Your task to perform on an android device: toggle sleep mode Image 0: 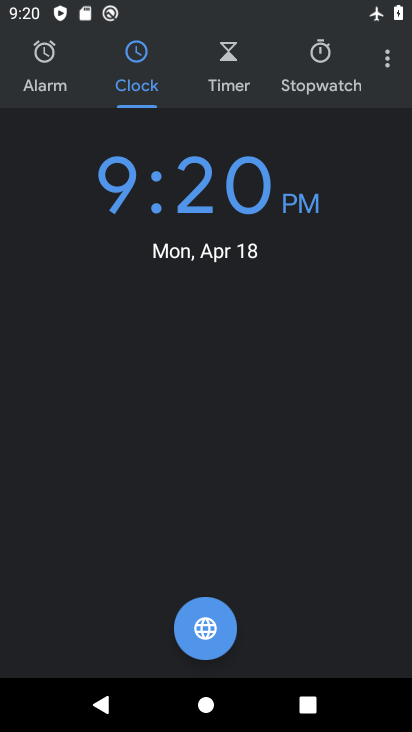
Step 0: press home button
Your task to perform on an android device: toggle sleep mode Image 1: 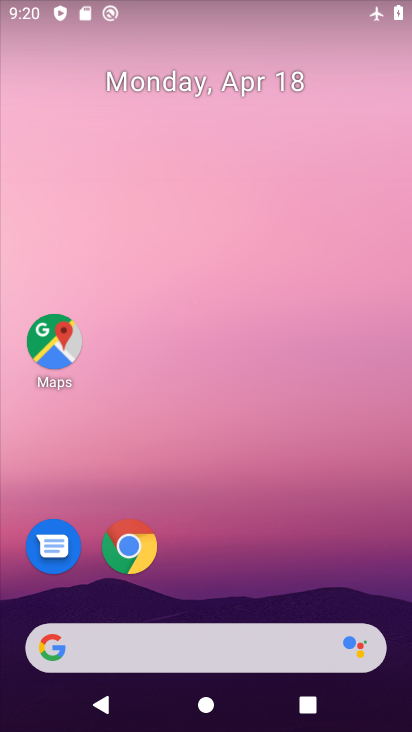
Step 1: drag from (302, 504) to (294, 111)
Your task to perform on an android device: toggle sleep mode Image 2: 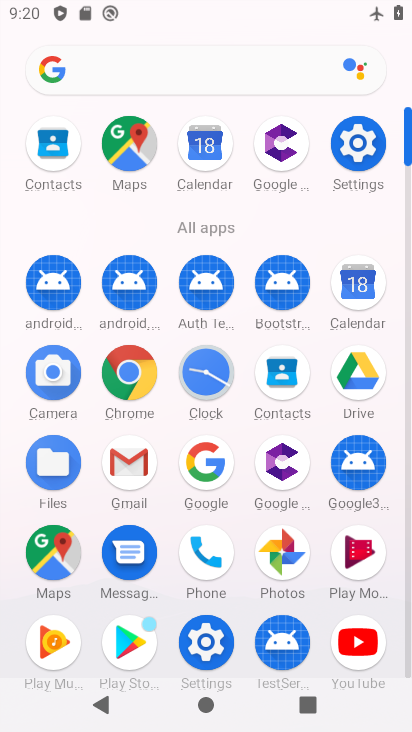
Step 2: click (208, 7)
Your task to perform on an android device: toggle sleep mode Image 3: 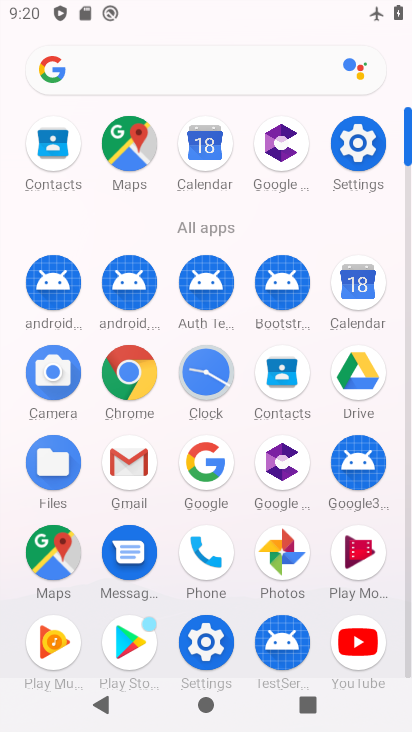
Step 3: click (349, 161)
Your task to perform on an android device: toggle sleep mode Image 4: 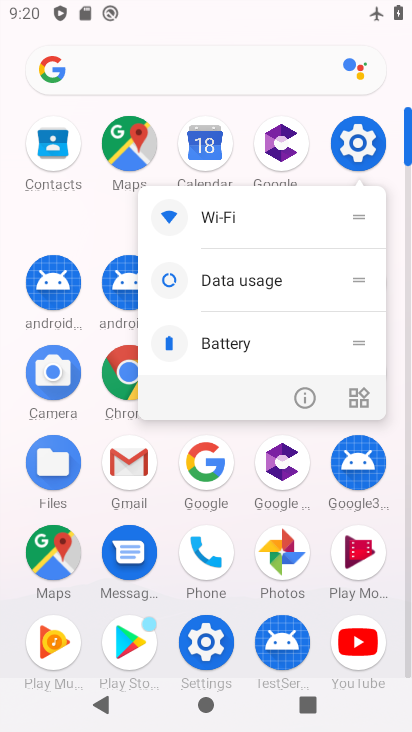
Step 4: click (379, 156)
Your task to perform on an android device: toggle sleep mode Image 5: 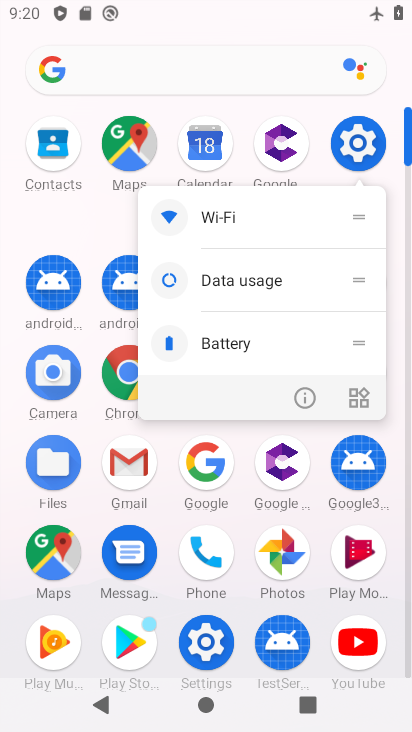
Step 5: click (362, 147)
Your task to perform on an android device: toggle sleep mode Image 6: 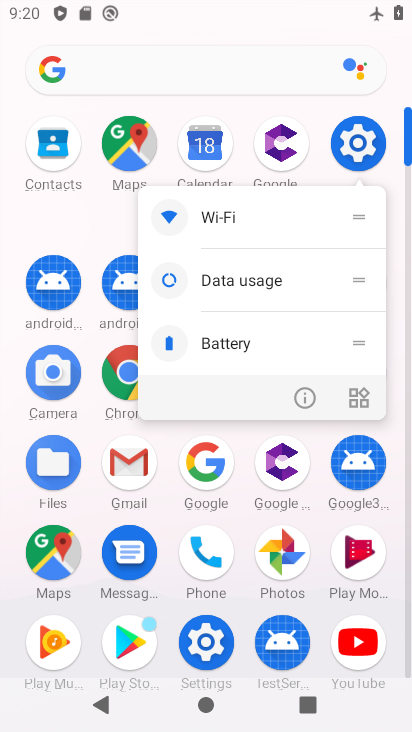
Step 6: click (363, 143)
Your task to perform on an android device: toggle sleep mode Image 7: 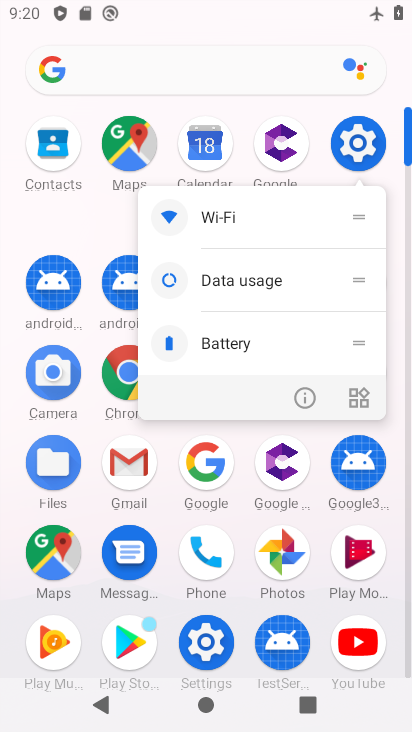
Step 7: click (363, 142)
Your task to perform on an android device: toggle sleep mode Image 8: 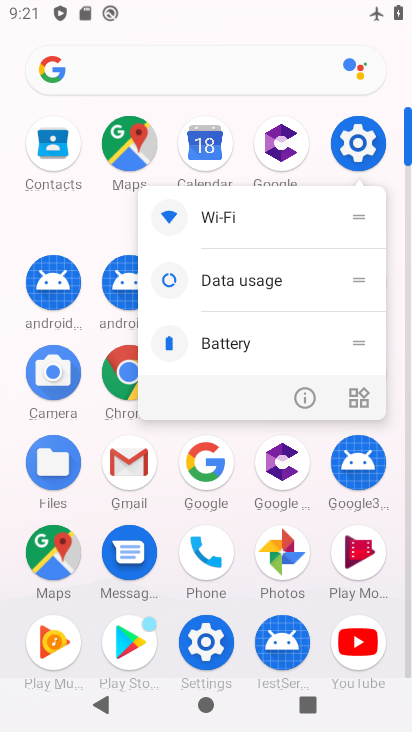
Step 8: click (365, 147)
Your task to perform on an android device: toggle sleep mode Image 9: 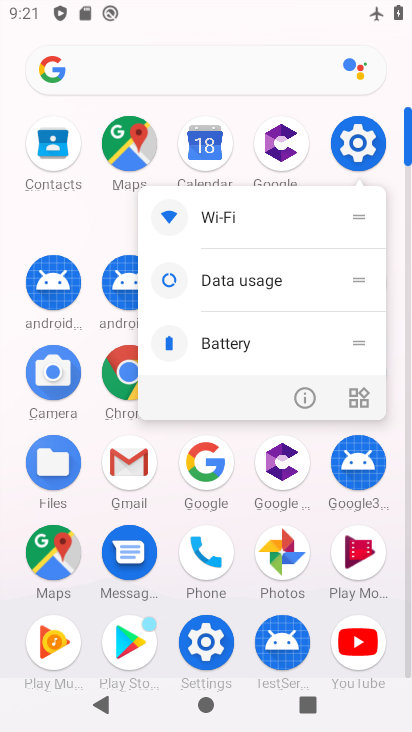
Step 9: click (363, 152)
Your task to perform on an android device: toggle sleep mode Image 10: 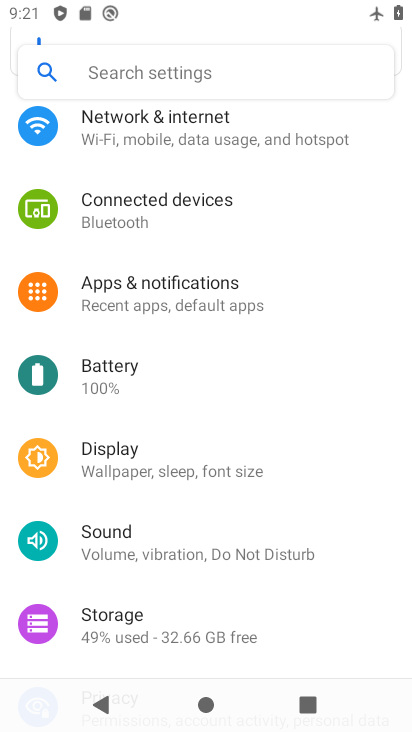
Step 10: click (169, 467)
Your task to perform on an android device: toggle sleep mode Image 11: 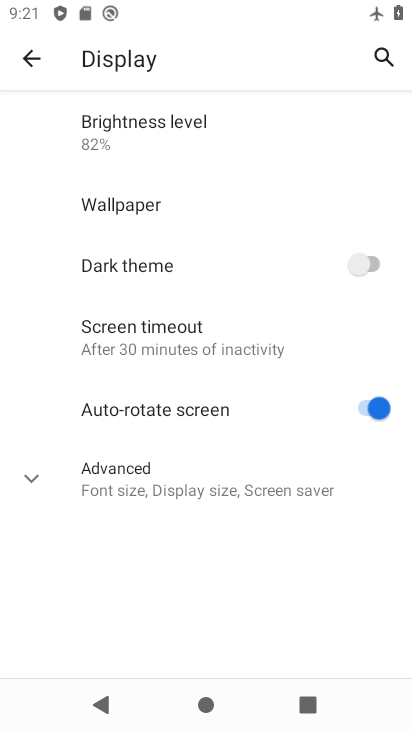
Step 11: click (29, 474)
Your task to perform on an android device: toggle sleep mode Image 12: 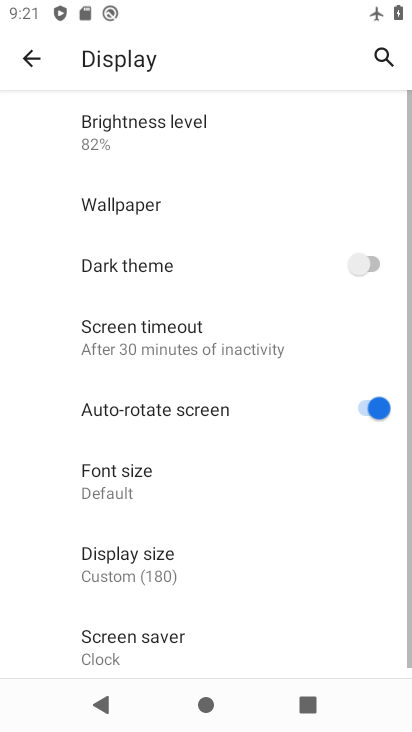
Step 12: task complete